Your task to perform on an android device: open app "eBay: The shopping marketplace" Image 0: 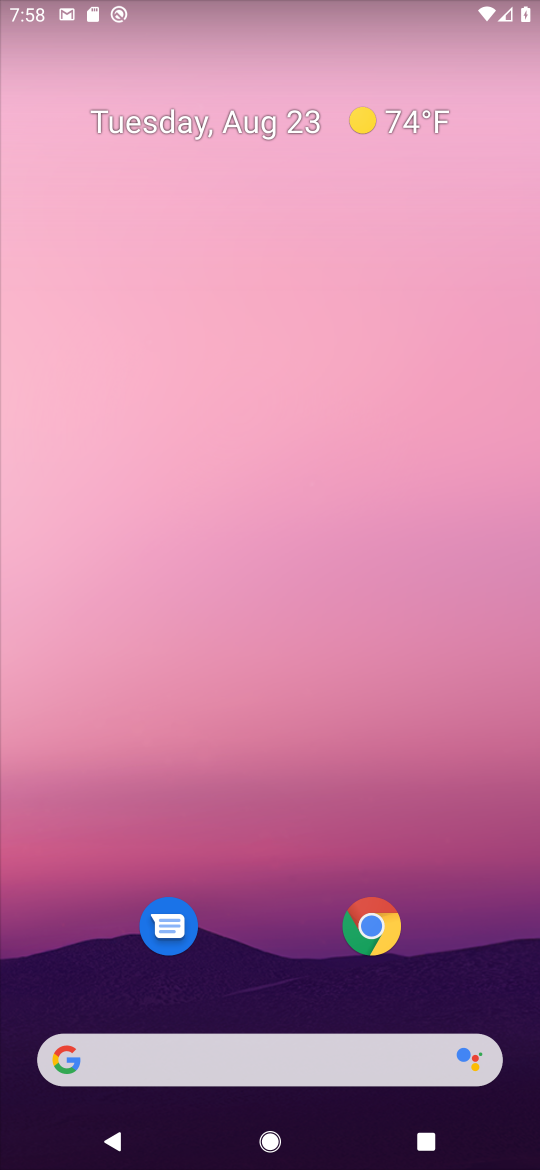
Step 0: drag from (257, 966) to (275, 15)
Your task to perform on an android device: open app "eBay: The shopping marketplace" Image 1: 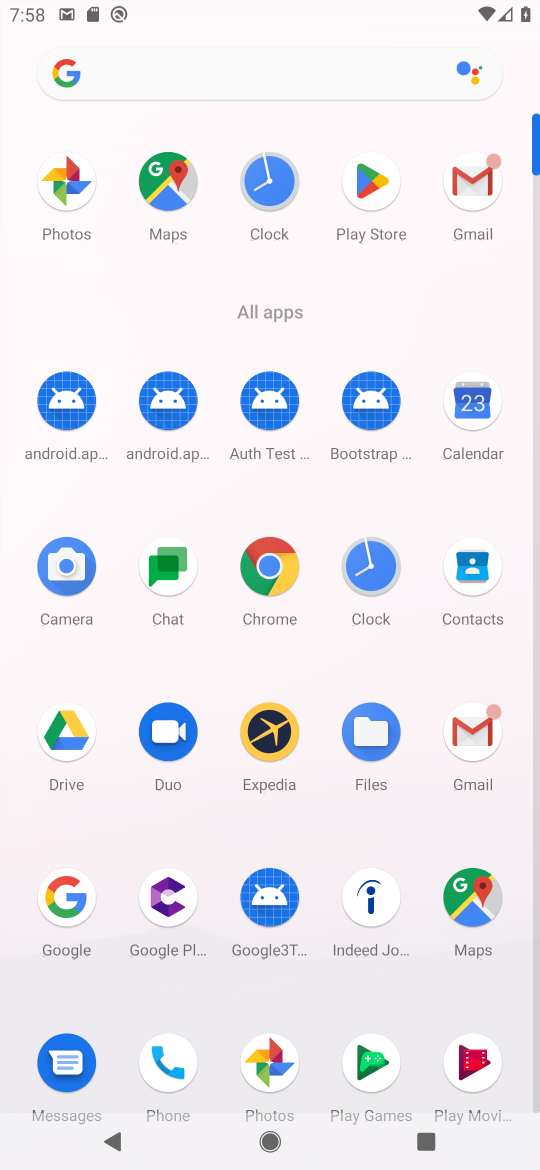
Step 1: click (386, 238)
Your task to perform on an android device: open app "eBay: The shopping marketplace" Image 2: 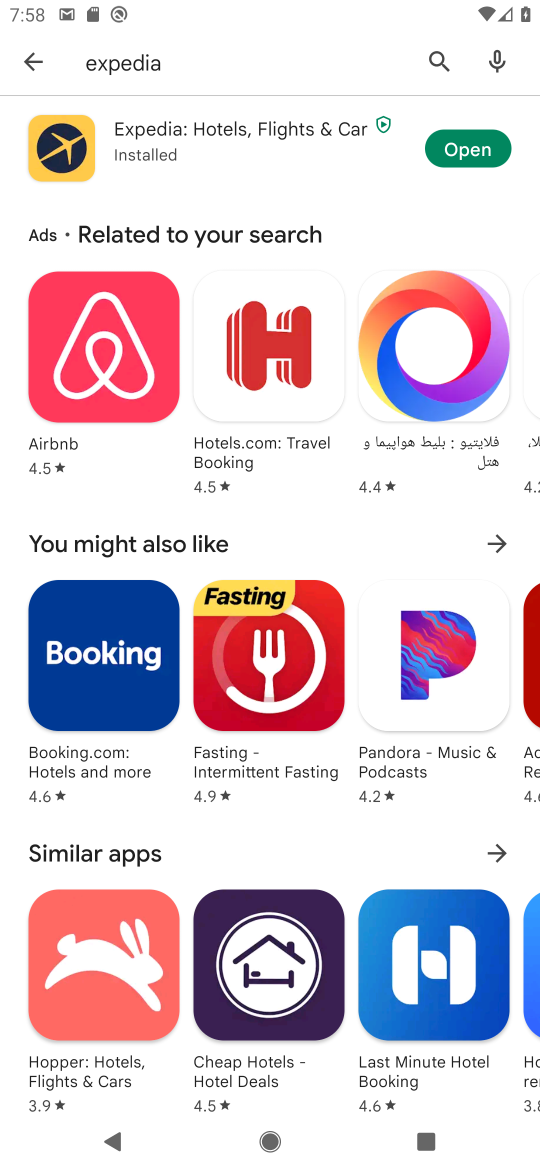
Step 2: click (192, 68)
Your task to perform on an android device: open app "eBay: The shopping marketplace" Image 3: 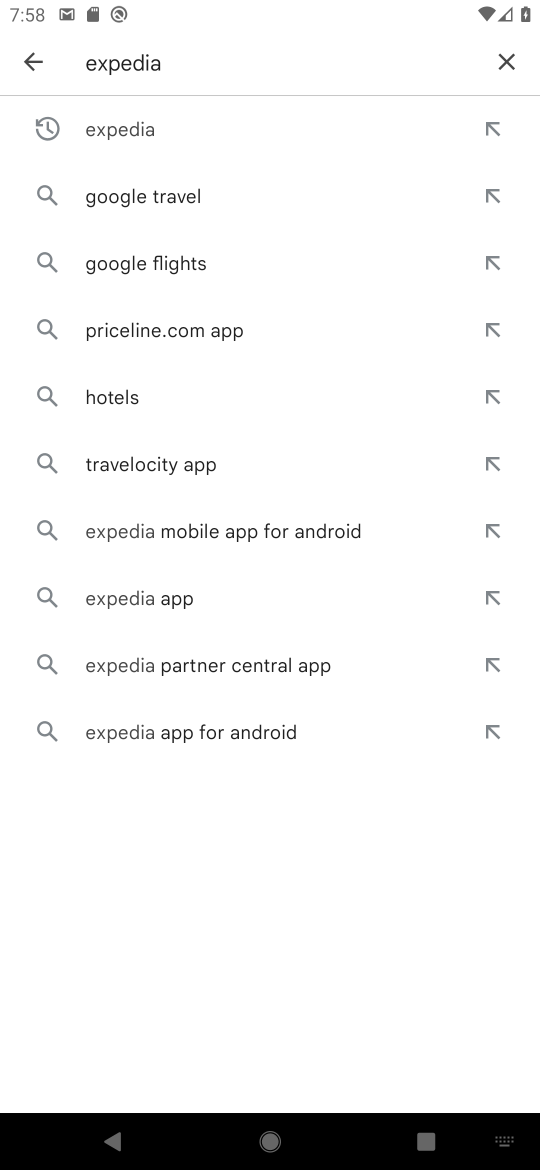
Step 3: click (505, 50)
Your task to perform on an android device: open app "eBay: The shopping marketplace" Image 4: 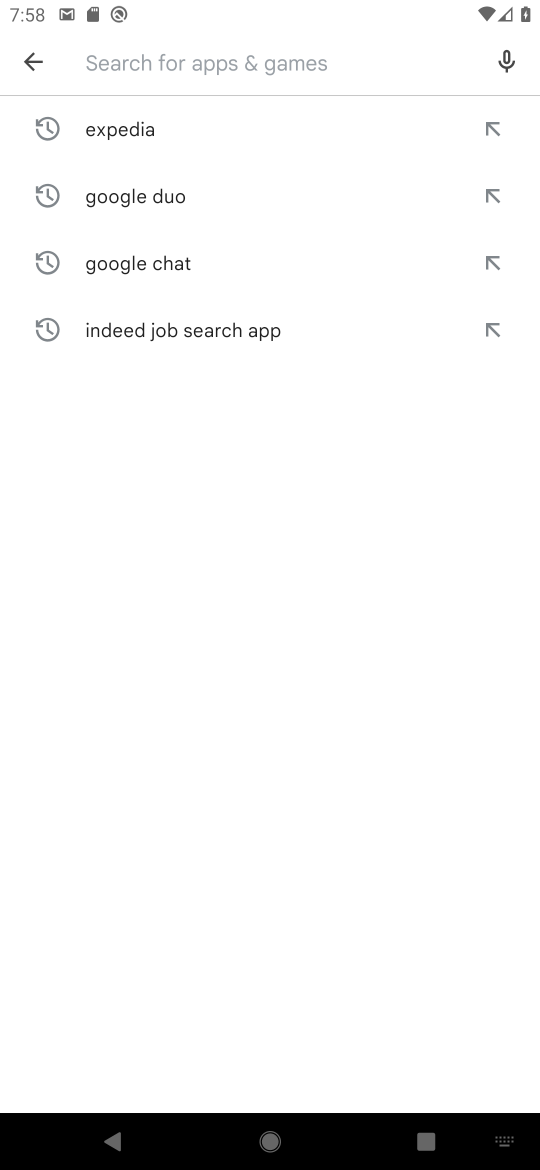
Step 4: type "eBay"
Your task to perform on an android device: open app "eBay: The shopping marketplace" Image 5: 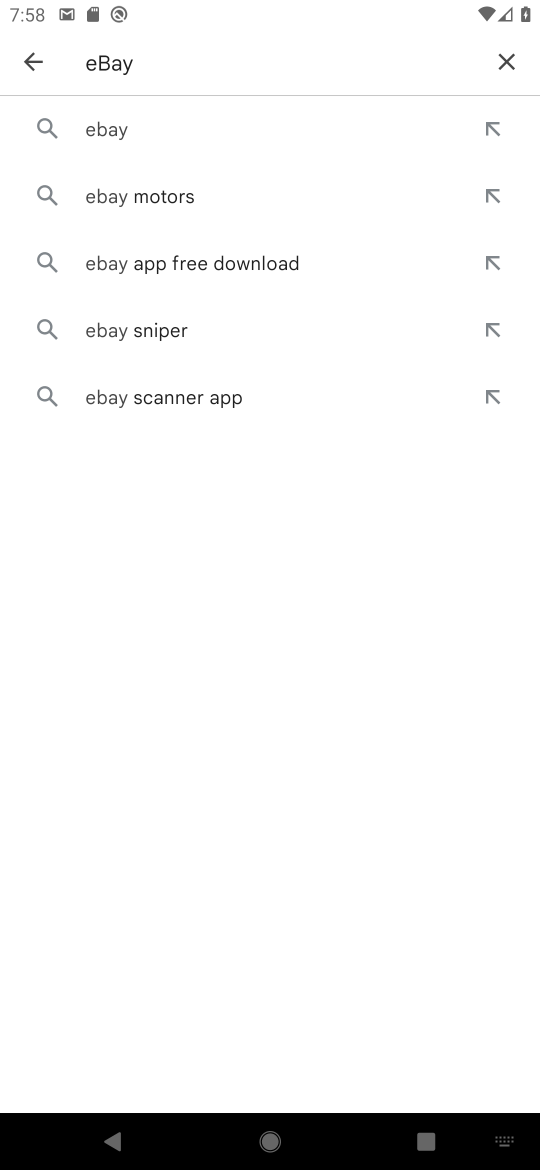
Step 5: click (154, 132)
Your task to perform on an android device: open app "eBay: The shopping marketplace" Image 6: 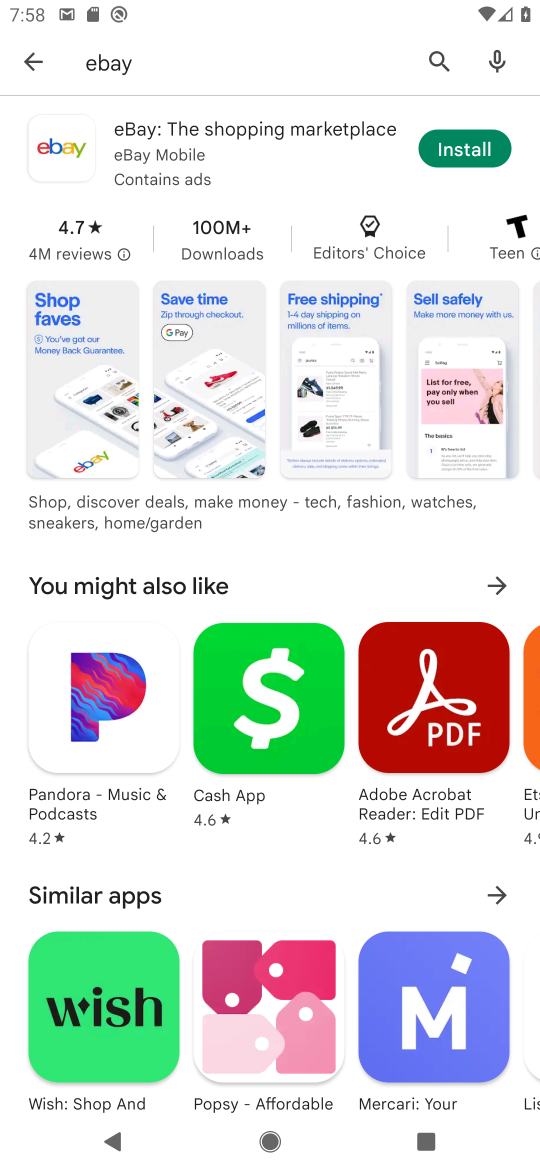
Step 6: task complete